Your task to perform on an android device: Go to internet settings Image 0: 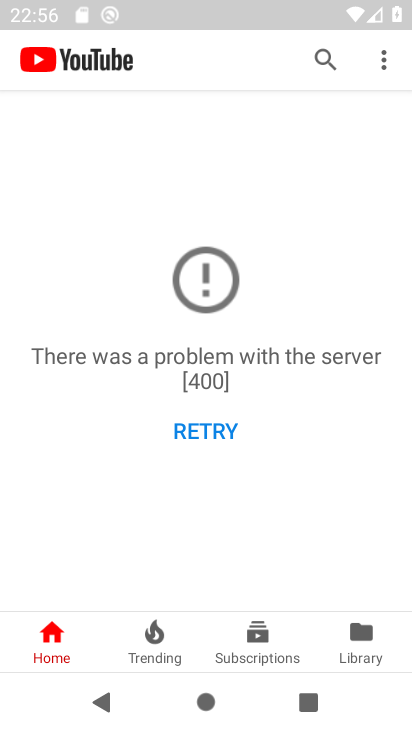
Step 0: press home button
Your task to perform on an android device: Go to internet settings Image 1: 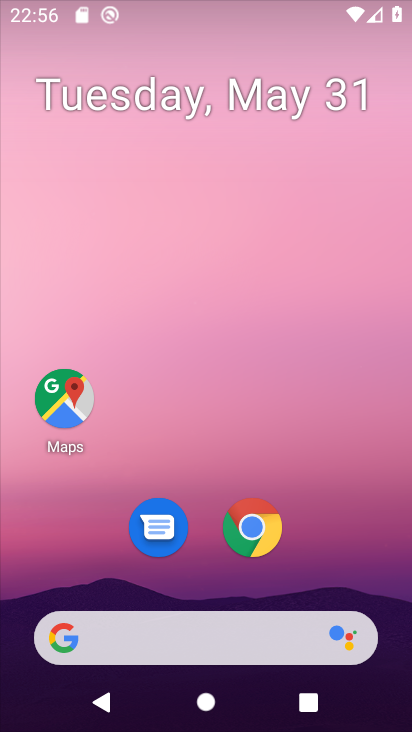
Step 1: drag from (333, 487) to (253, 22)
Your task to perform on an android device: Go to internet settings Image 2: 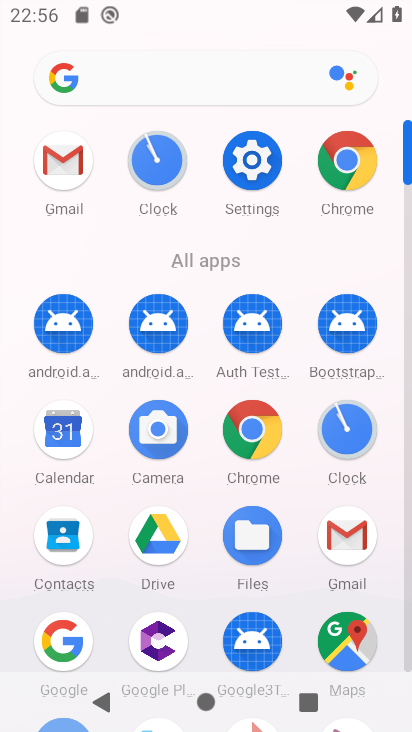
Step 2: click (262, 166)
Your task to perform on an android device: Go to internet settings Image 3: 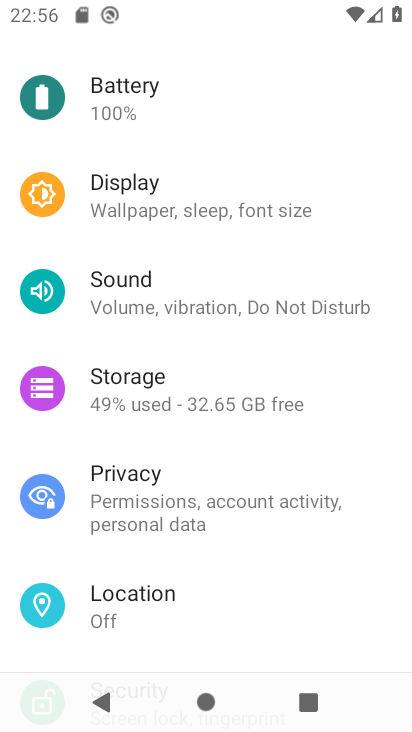
Step 3: drag from (248, 131) to (212, 604)
Your task to perform on an android device: Go to internet settings Image 4: 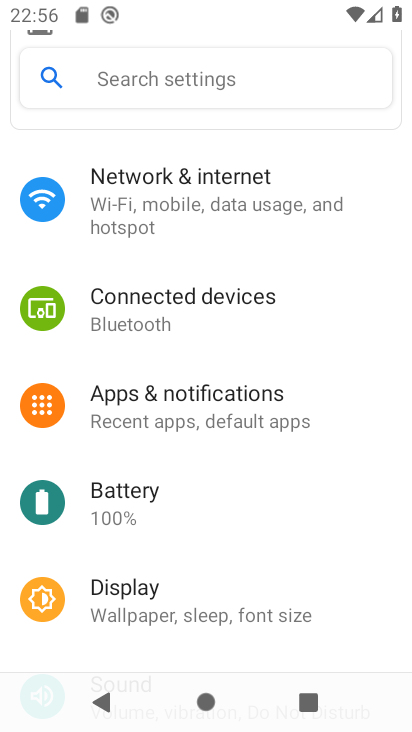
Step 4: click (233, 198)
Your task to perform on an android device: Go to internet settings Image 5: 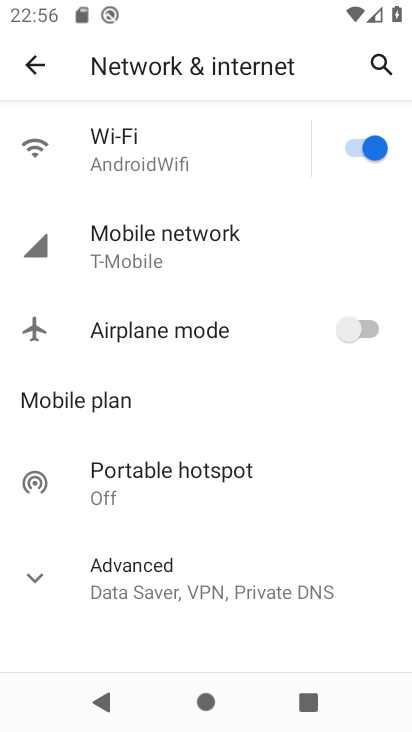
Step 5: task complete